Your task to perform on an android device: Open calendar and show me the second week of next month Image 0: 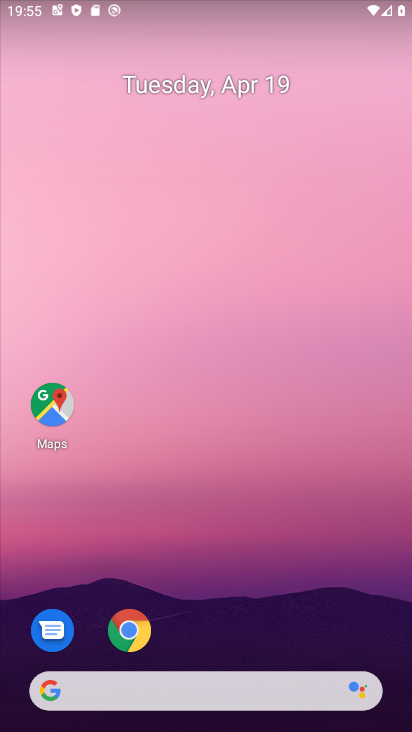
Step 0: drag from (379, 594) to (348, 18)
Your task to perform on an android device: Open calendar and show me the second week of next month Image 1: 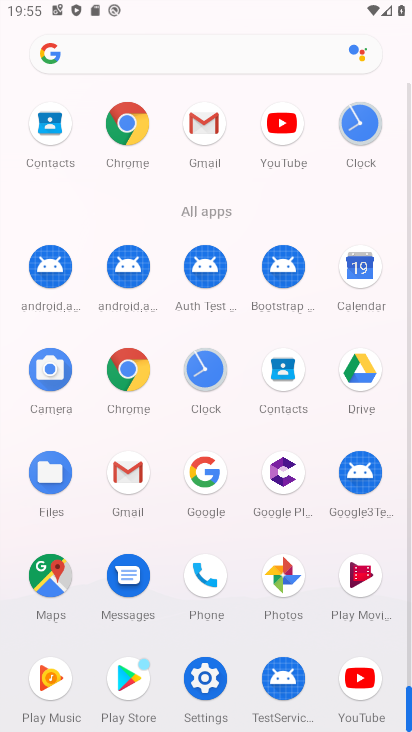
Step 1: drag from (0, 495) to (5, 253)
Your task to perform on an android device: Open calendar and show me the second week of next month Image 2: 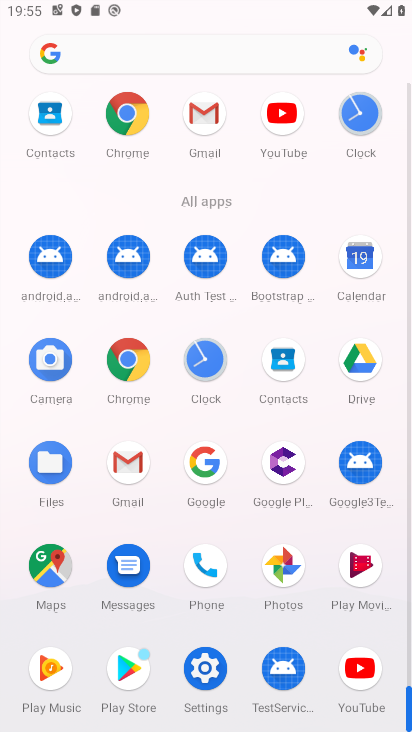
Step 2: drag from (6, 584) to (12, 323)
Your task to perform on an android device: Open calendar and show me the second week of next month Image 3: 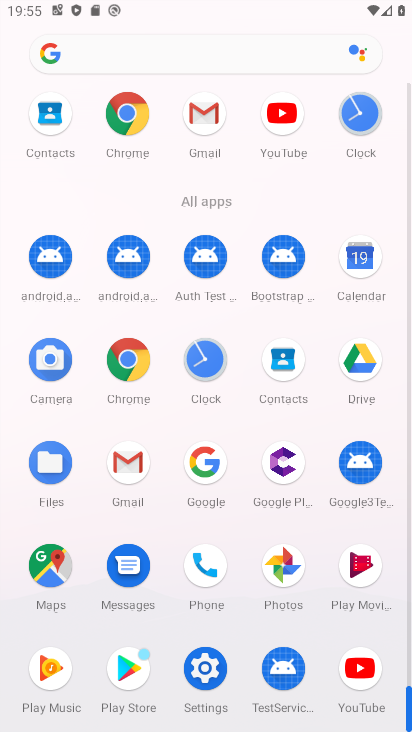
Step 3: click (361, 254)
Your task to perform on an android device: Open calendar and show me the second week of next month Image 4: 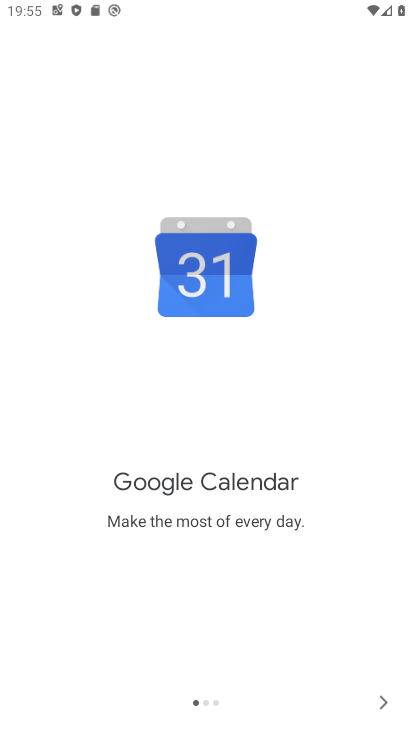
Step 4: click (377, 696)
Your task to perform on an android device: Open calendar and show me the second week of next month Image 5: 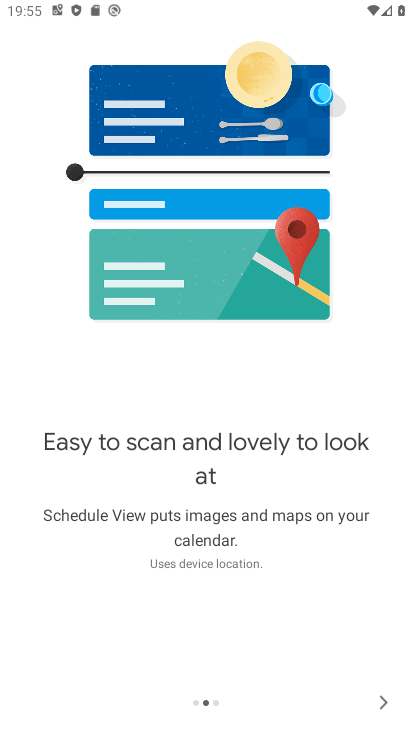
Step 5: click (379, 692)
Your task to perform on an android device: Open calendar and show me the second week of next month Image 6: 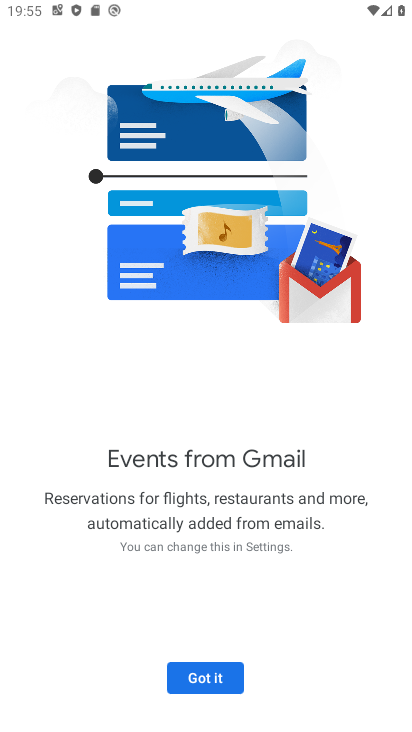
Step 6: click (208, 684)
Your task to perform on an android device: Open calendar and show me the second week of next month Image 7: 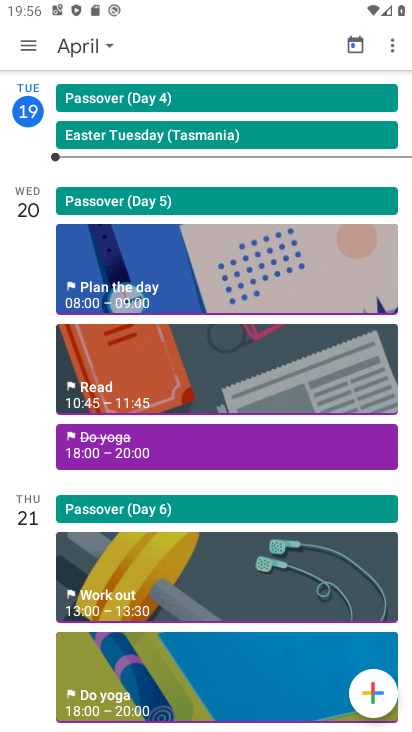
Step 7: click (97, 43)
Your task to perform on an android device: Open calendar and show me the second week of next month Image 8: 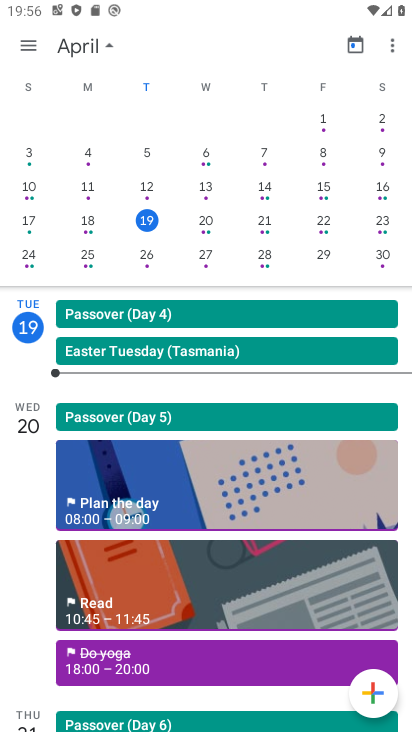
Step 8: drag from (391, 183) to (5, 214)
Your task to perform on an android device: Open calendar and show me the second week of next month Image 9: 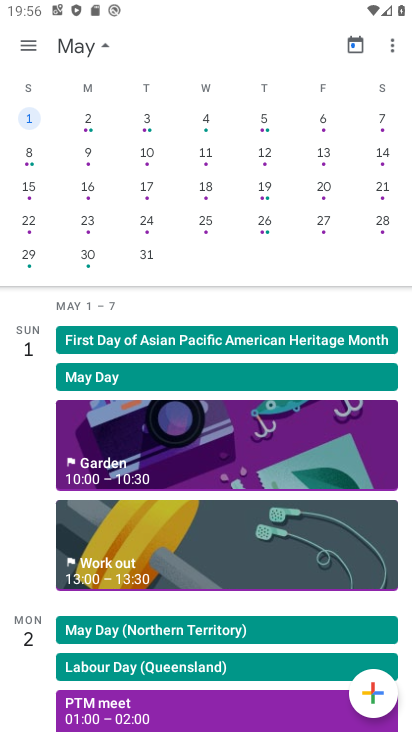
Step 9: click (89, 150)
Your task to perform on an android device: Open calendar and show me the second week of next month Image 10: 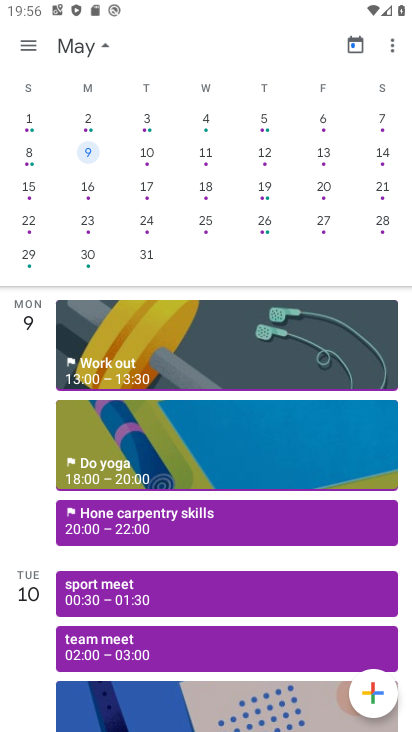
Step 10: click (24, 47)
Your task to perform on an android device: Open calendar and show me the second week of next month Image 11: 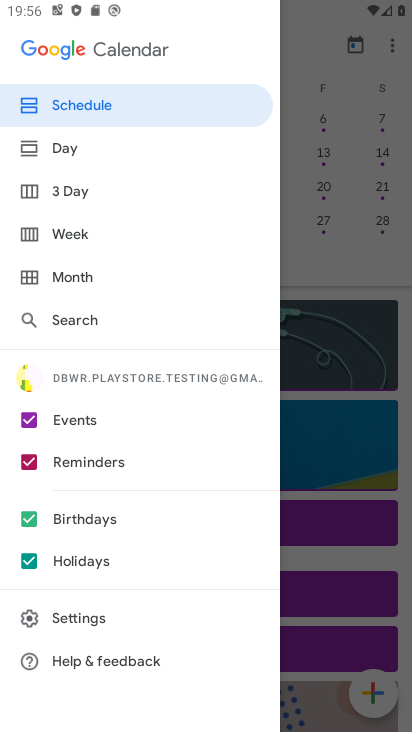
Step 11: click (105, 241)
Your task to perform on an android device: Open calendar and show me the second week of next month Image 12: 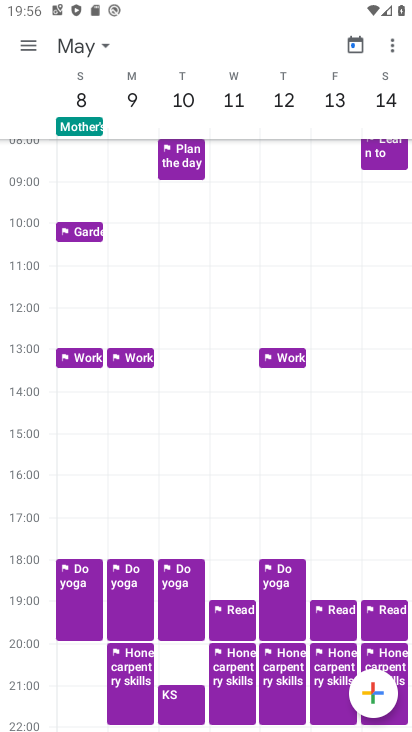
Step 12: task complete